Your task to perform on an android device: Search for a new bronzer Image 0: 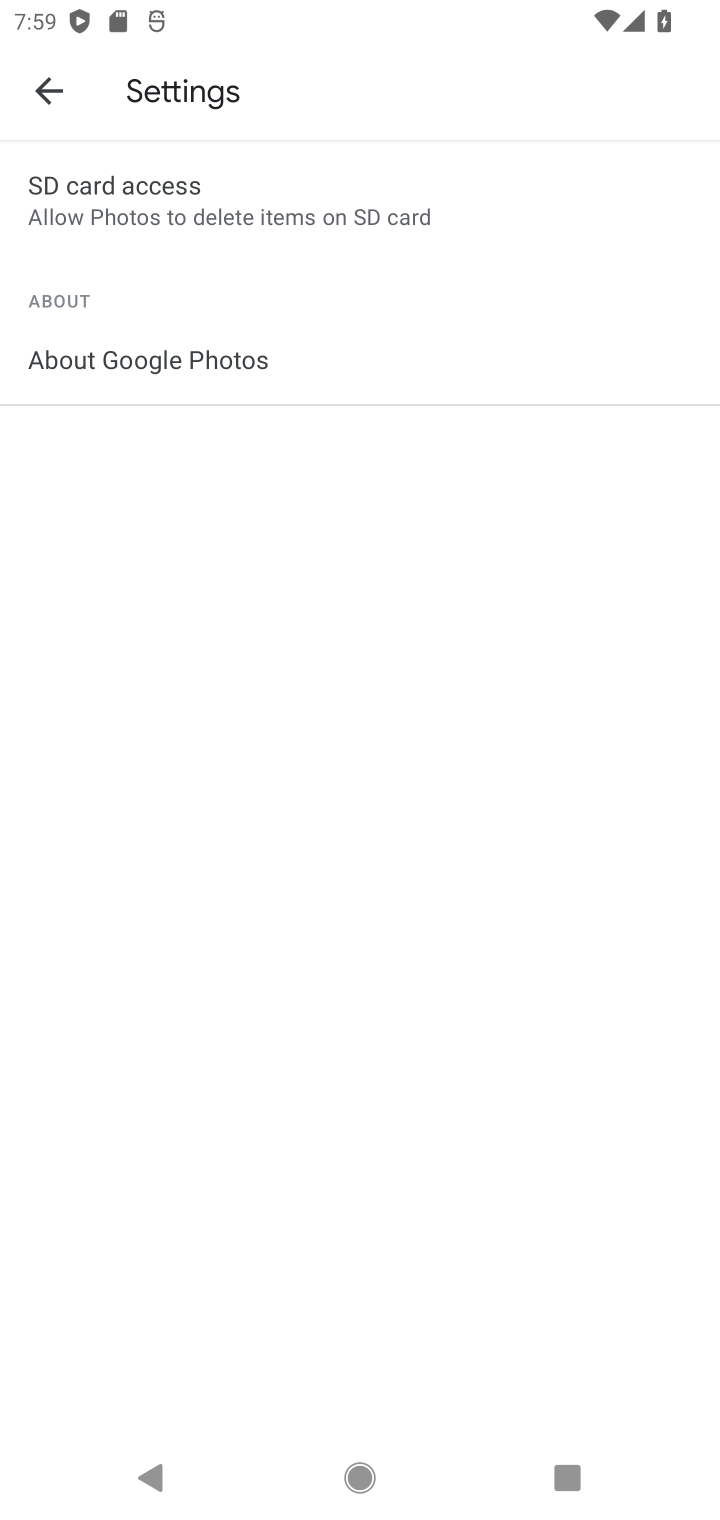
Step 0: press home button
Your task to perform on an android device: Search for a new bronzer Image 1: 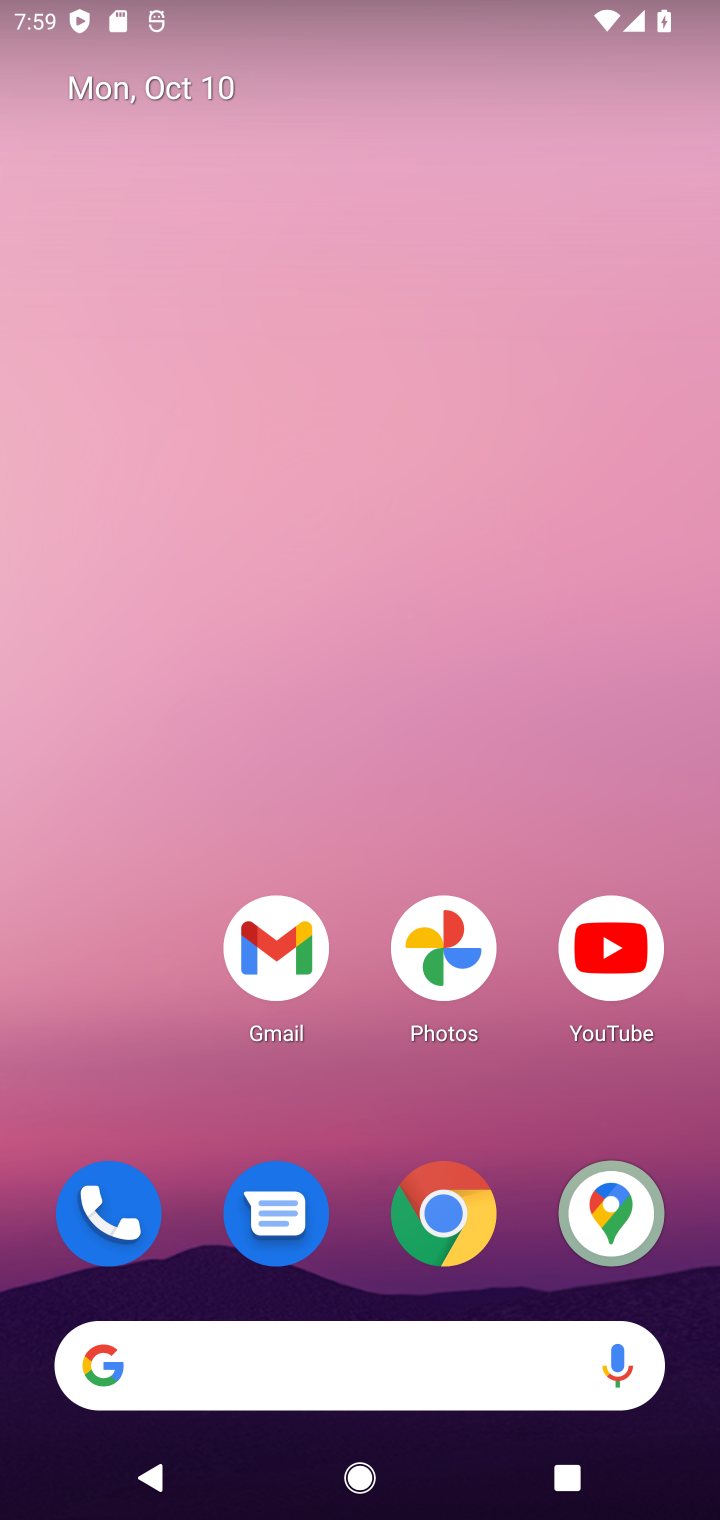
Step 1: click (241, 1380)
Your task to perform on an android device: Search for a new bronzer Image 2: 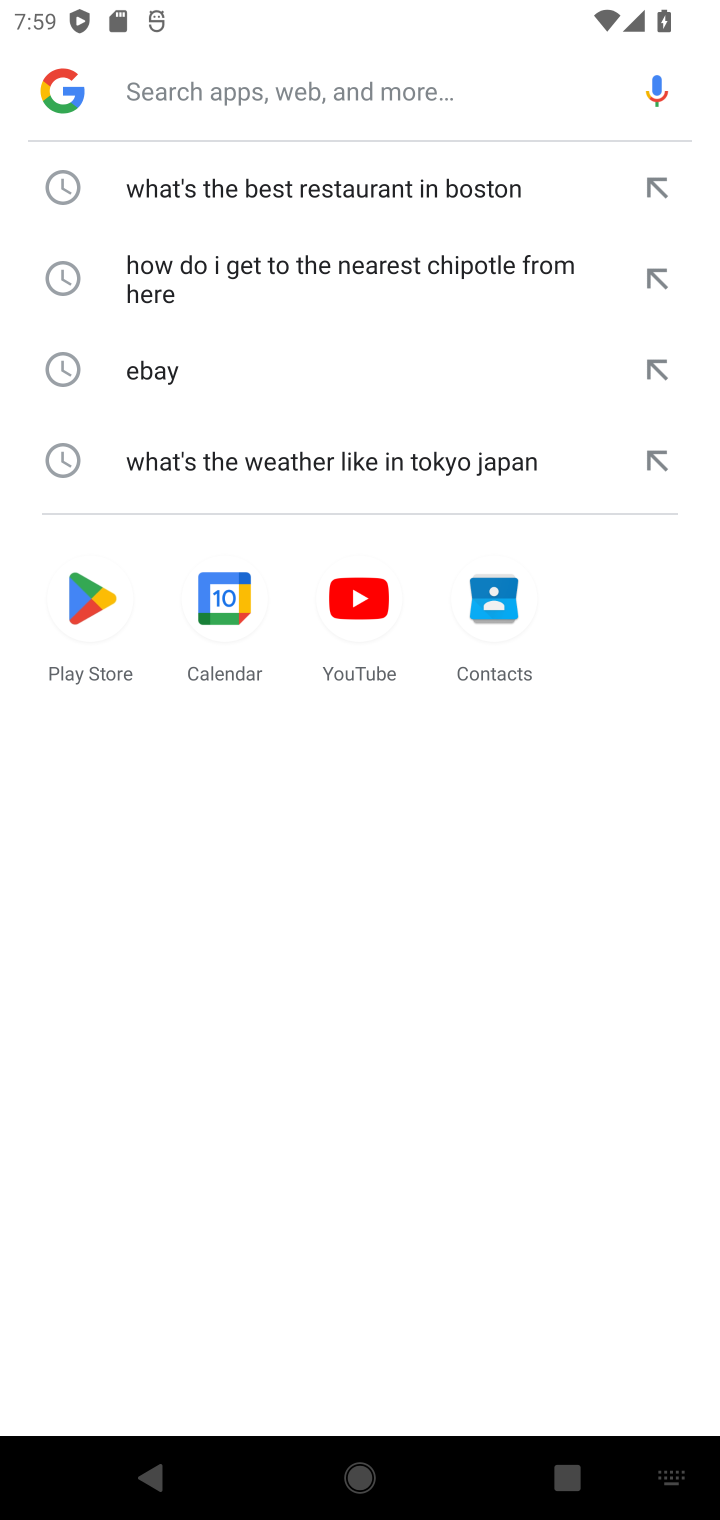
Step 2: drag from (235, 95) to (316, 132)
Your task to perform on an android device: Search for a new bronzer Image 3: 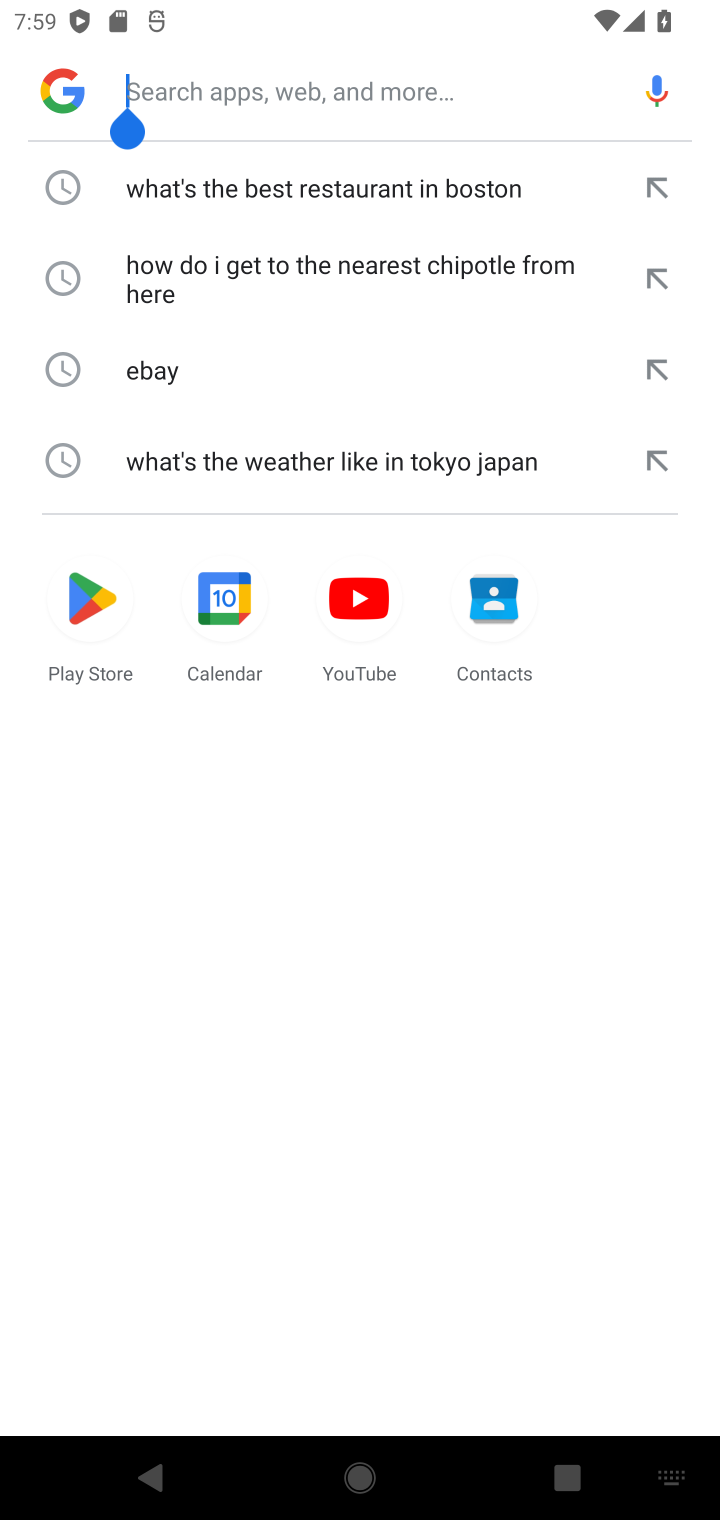
Step 3: type "new bronzer"
Your task to perform on an android device: Search for a new bronzer Image 4: 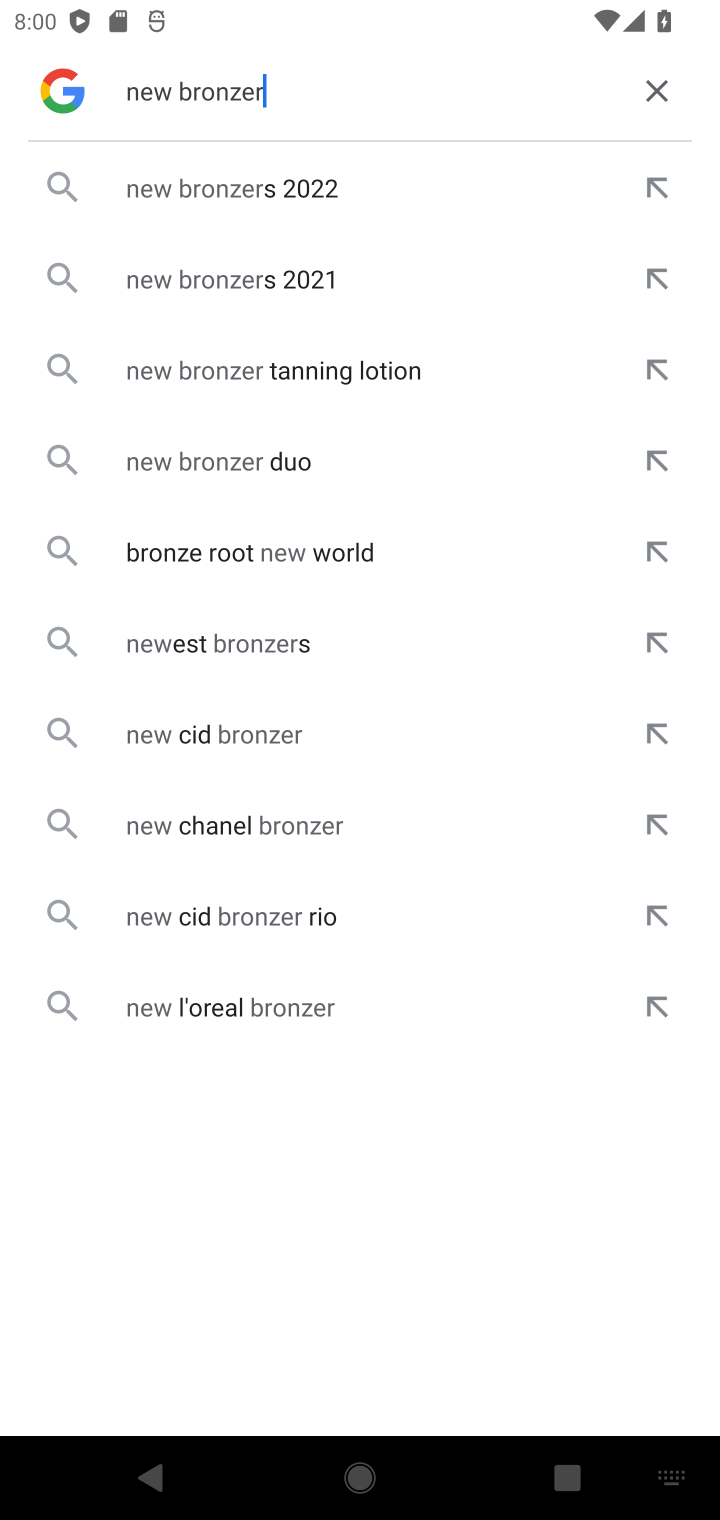
Step 4: click (305, 209)
Your task to perform on an android device: Search for a new bronzer Image 5: 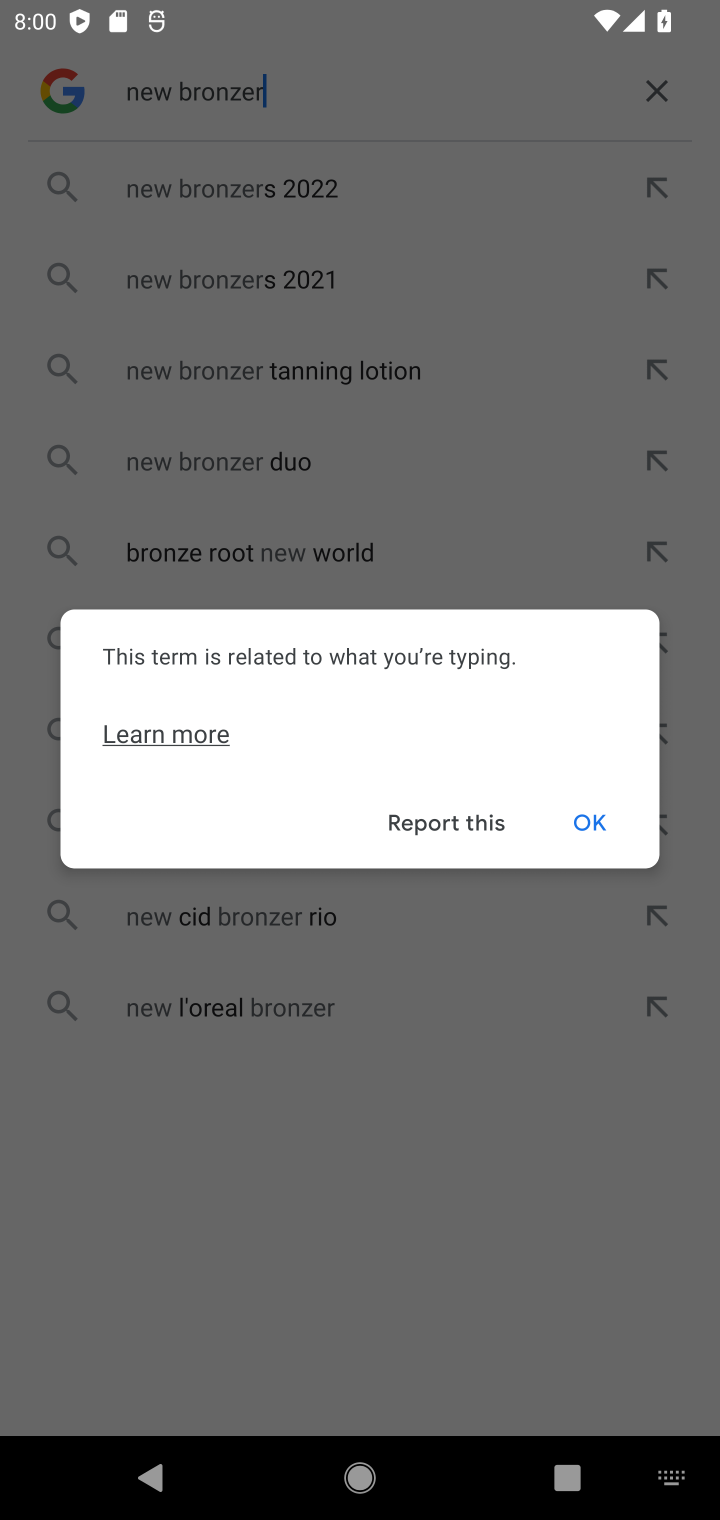
Step 5: click (615, 837)
Your task to perform on an android device: Search for a new bronzer Image 6: 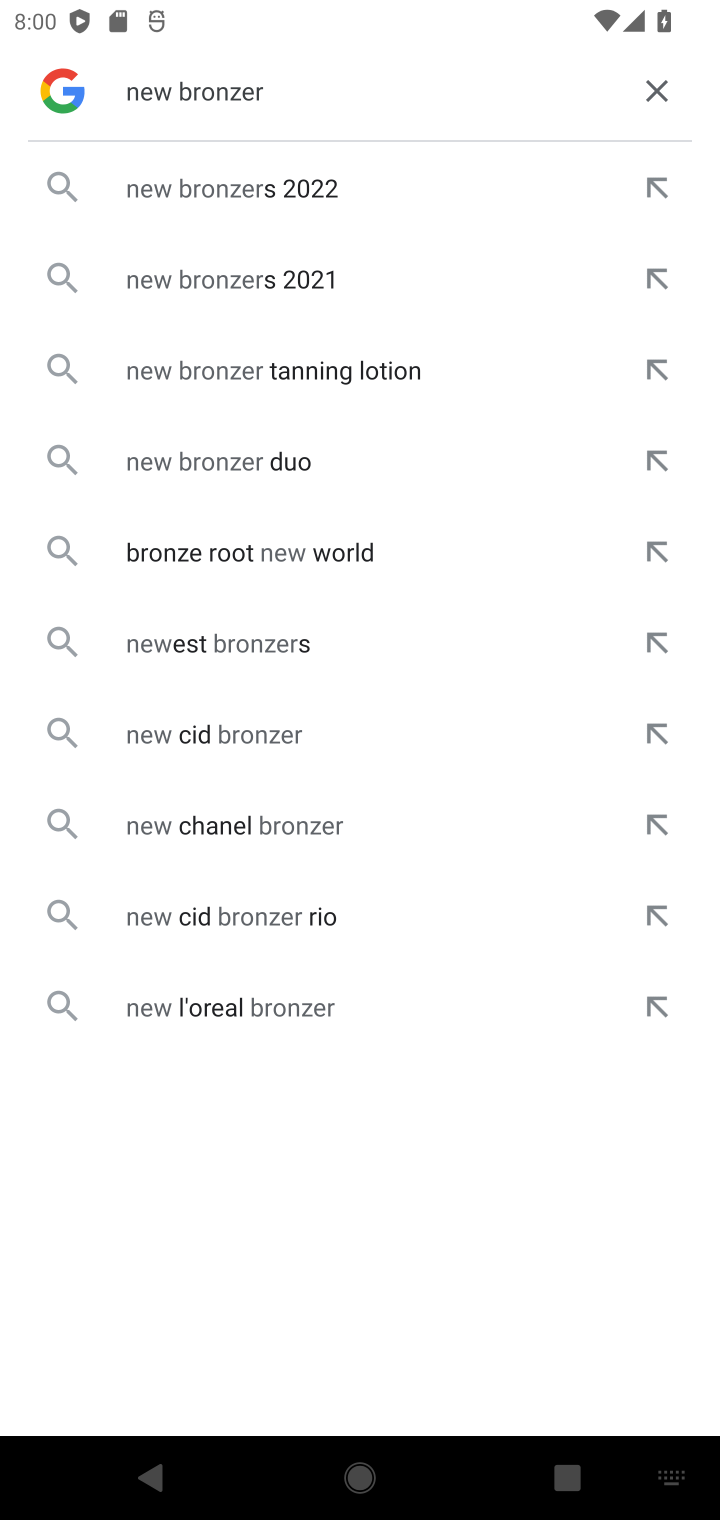
Step 6: click (293, 162)
Your task to perform on an android device: Search for a new bronzer Image 7: 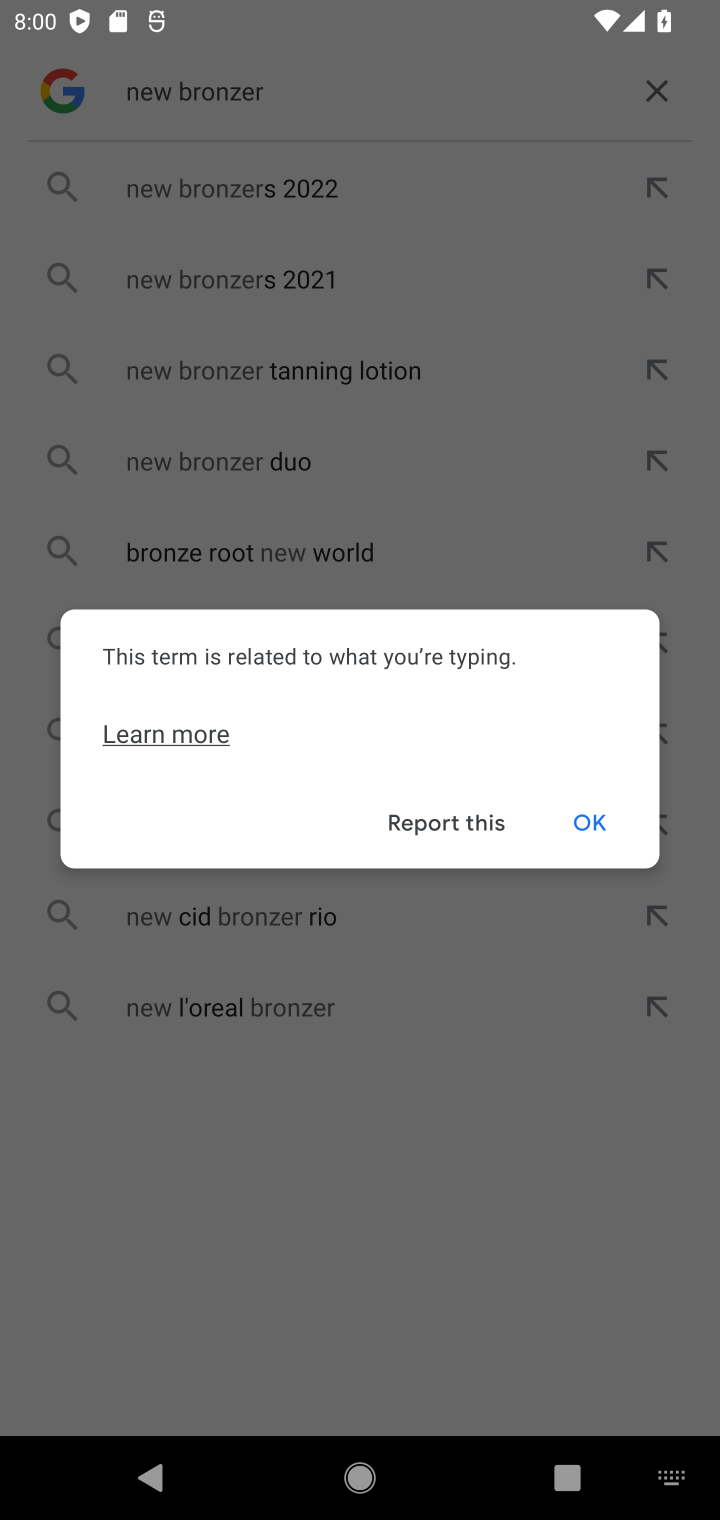
Step 7: click (600, 844)
Your task to perform on an android device: Search for a new bronzer Image 8: 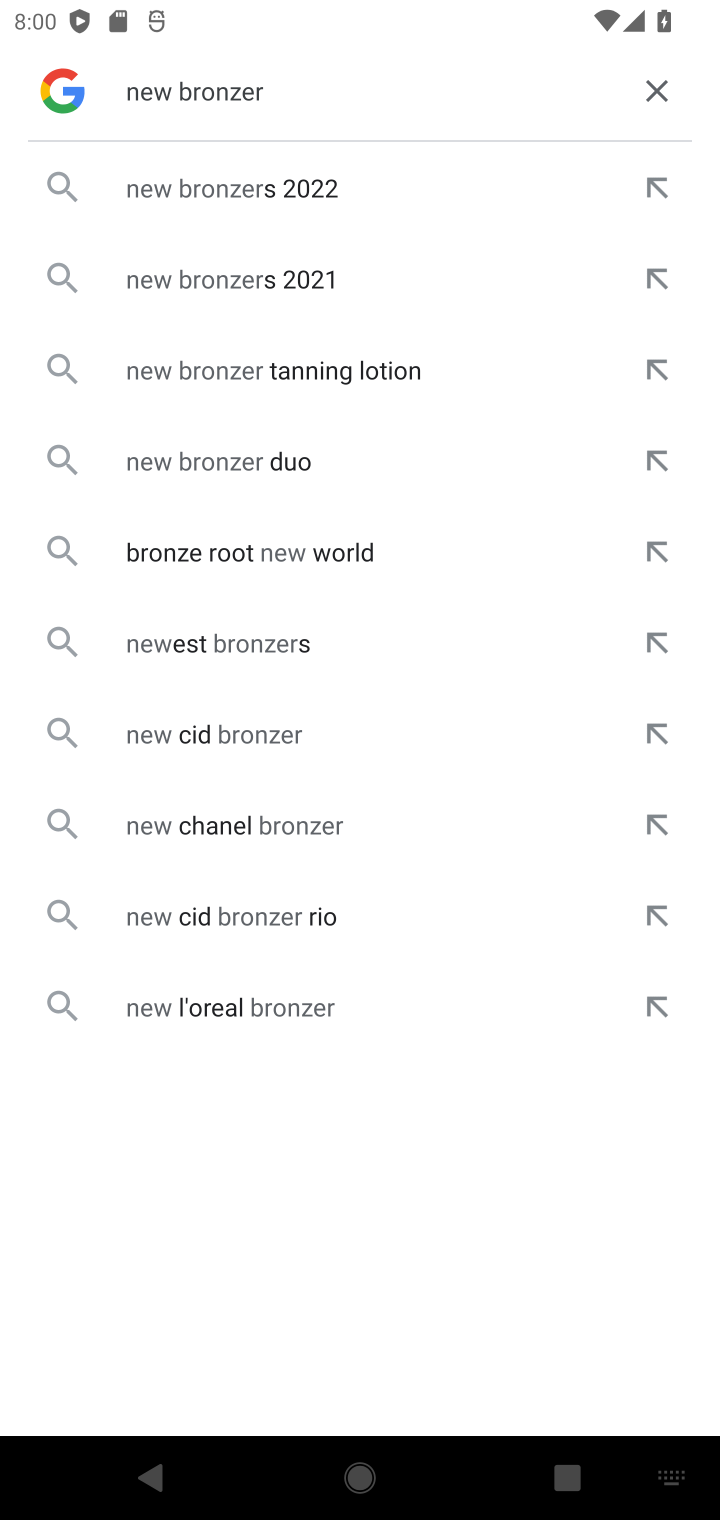
Step 8: click (200, 198)
Your task to perform on an android device: Search for a new bronzer Image 9: 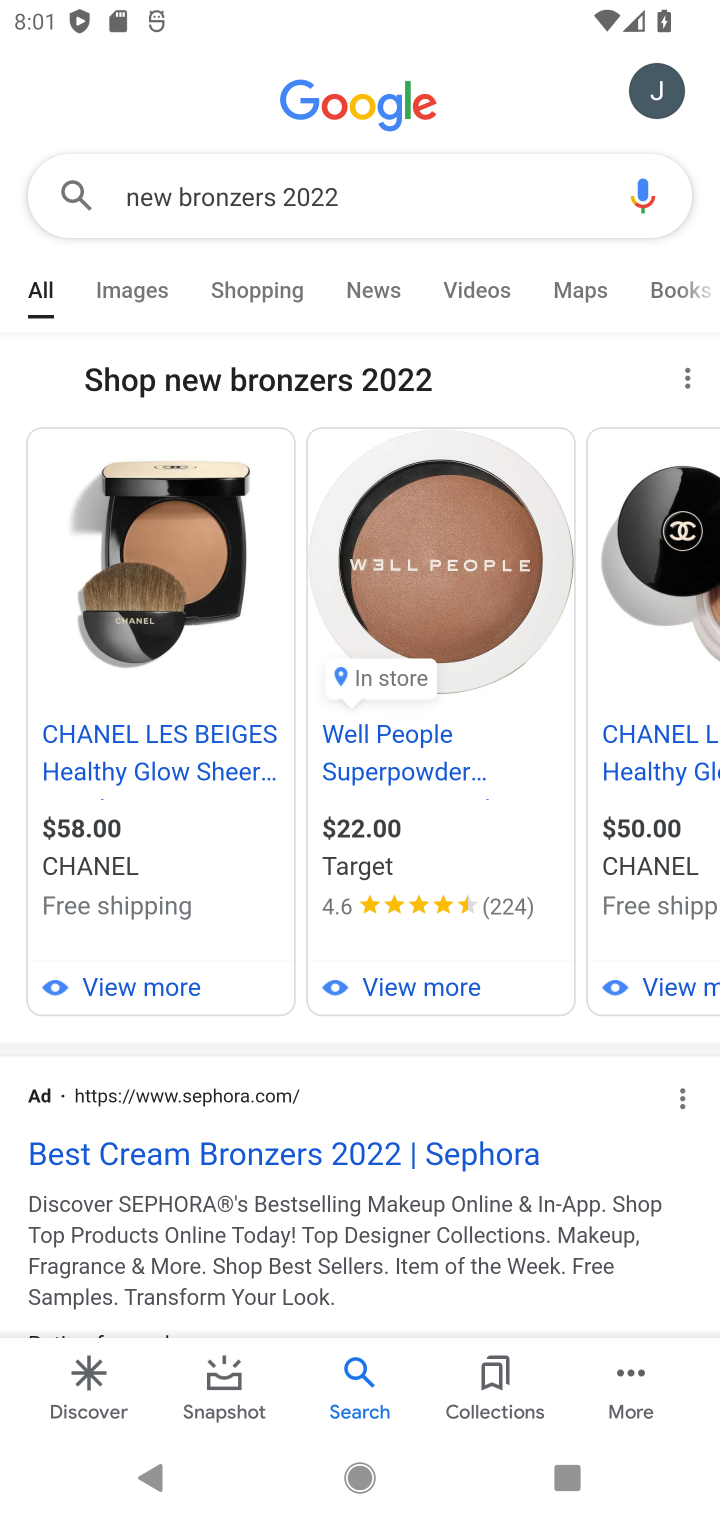
Step 9: task complete